Your task to perform on an android device: Go to ESPN.com Image 0: 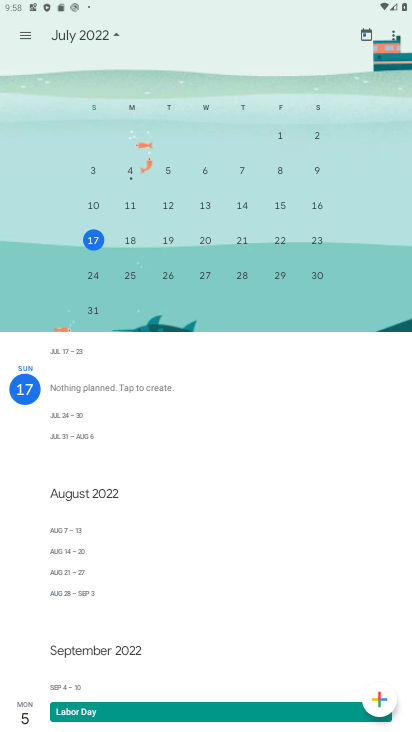
Step 0: press home button
Your task to perform on an android device: Go to ESPN.com Image 1: 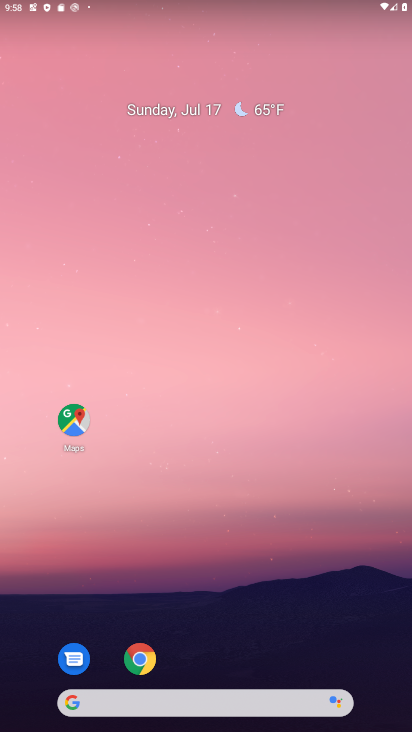
Step 1: click (184, 706)
Your task to perform on an android device: Go to ESPN.com Image 2: 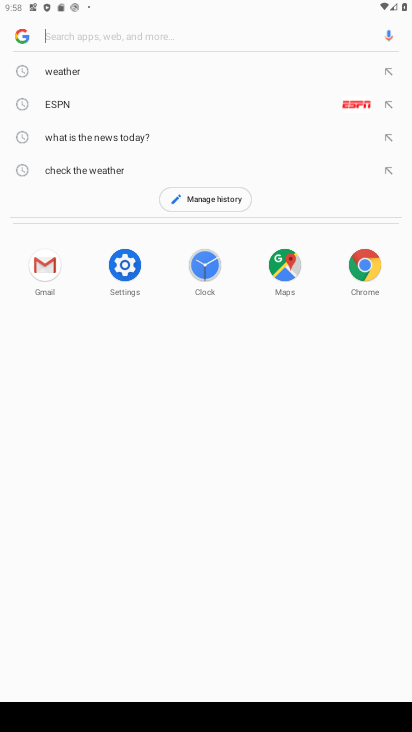
Step 2: click (118, 104)
Your task to perform on an android device: Go to ESPN.com Image 3: 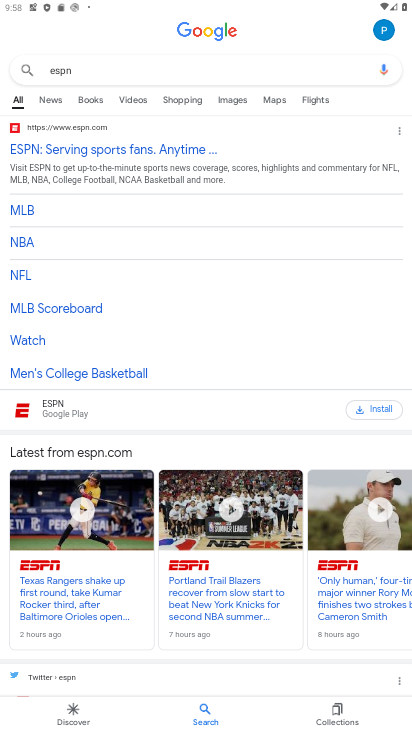
Step 3: task complete